Your task to perform on an android device: open app "TextNow: Call + Text Unlimited" (install if not already installed) Image 0: 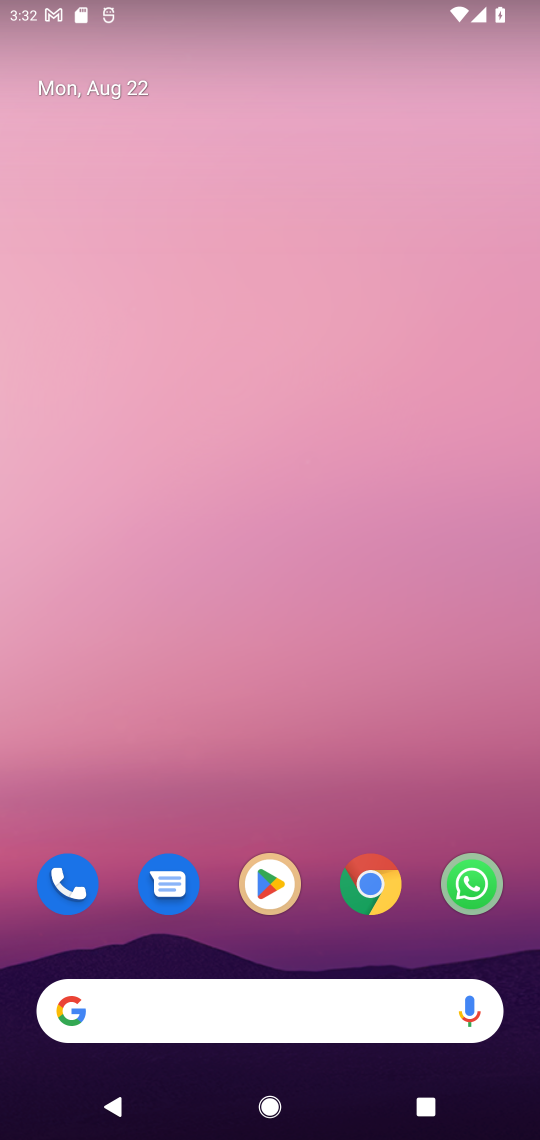
Step 0: click (285, 886)
Your task to perform on an android device: open app "TextNow: Call + Text Unlimited" (install if not already installed) Image 1: 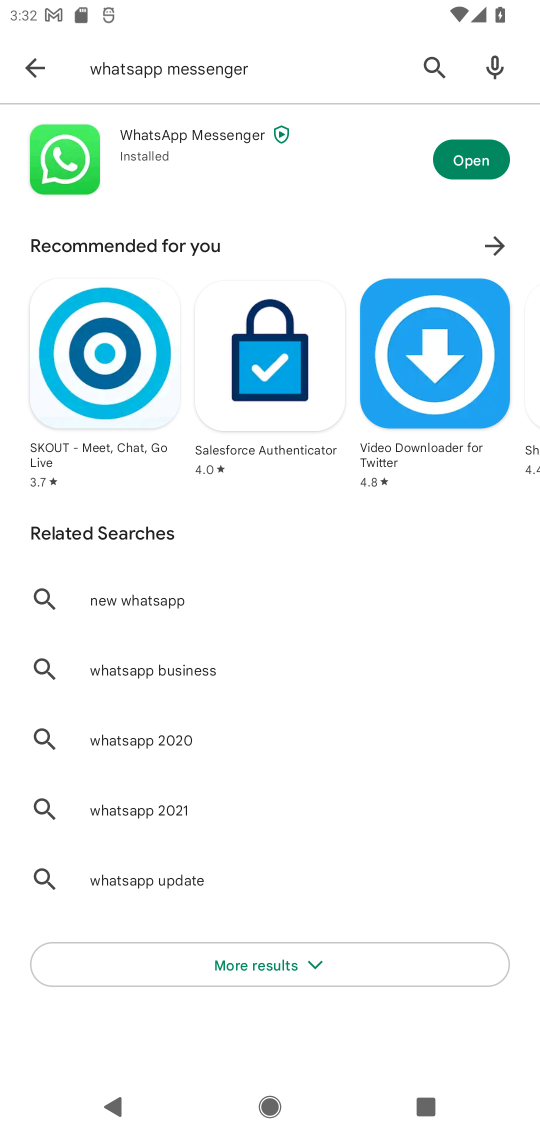
Step 1: click (225, 77)
Your task to perform on an android device: open app "TextNow: Call + Text Unlimited" (install if not already installed) Image 2: 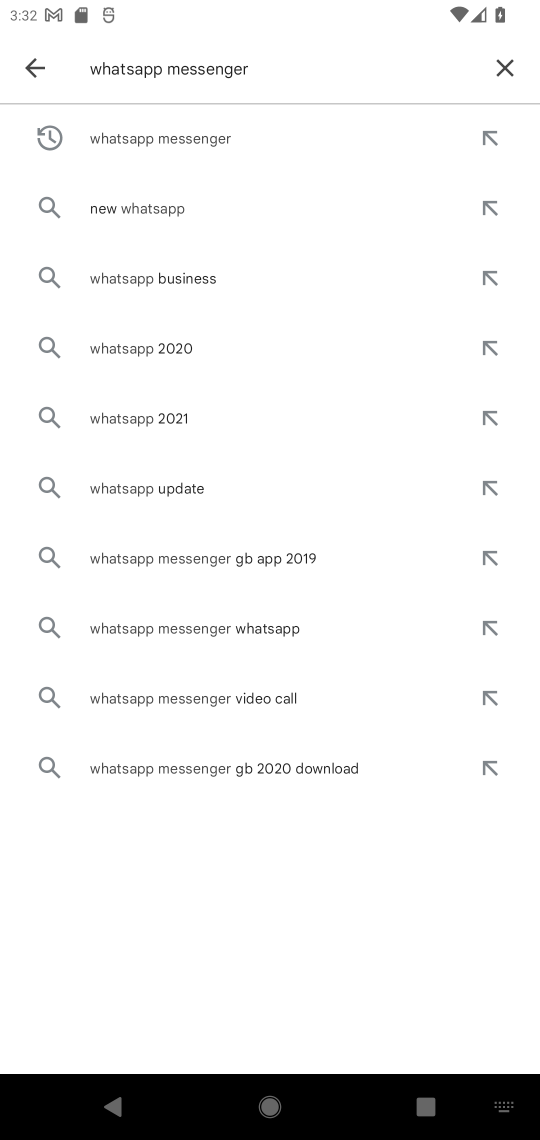
Step 2: click (502, 70)
Your task to perform on an android device: open app "TextNow: Call + Text Unlimited" (install if not already installed) Image 3: 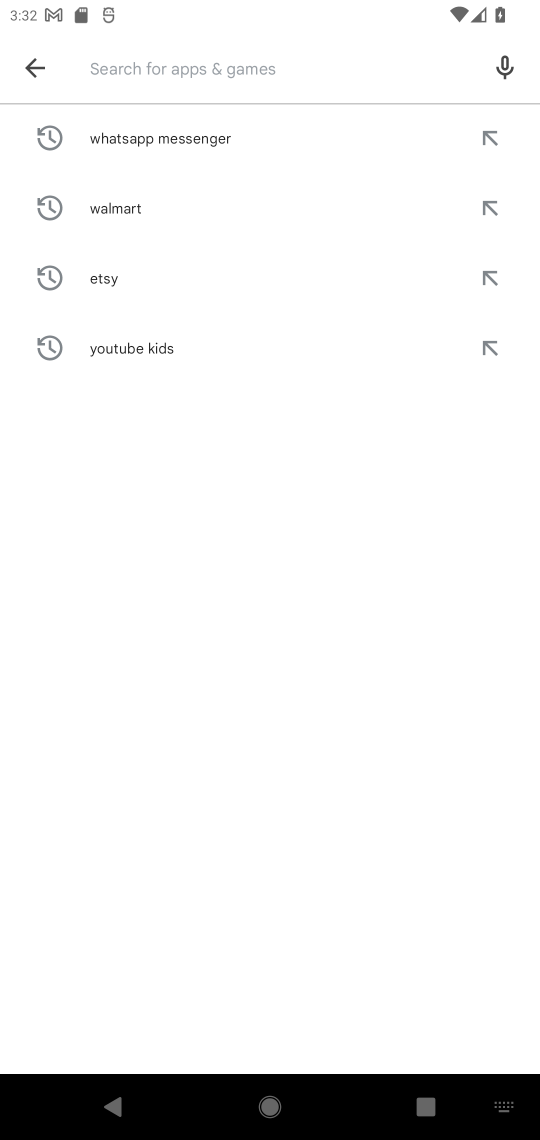
Step 3: type "TextNow"
Your task to perform on an android device: open app "TextNow: Call + Text Unlimited" (install if not already installed) Image 4: 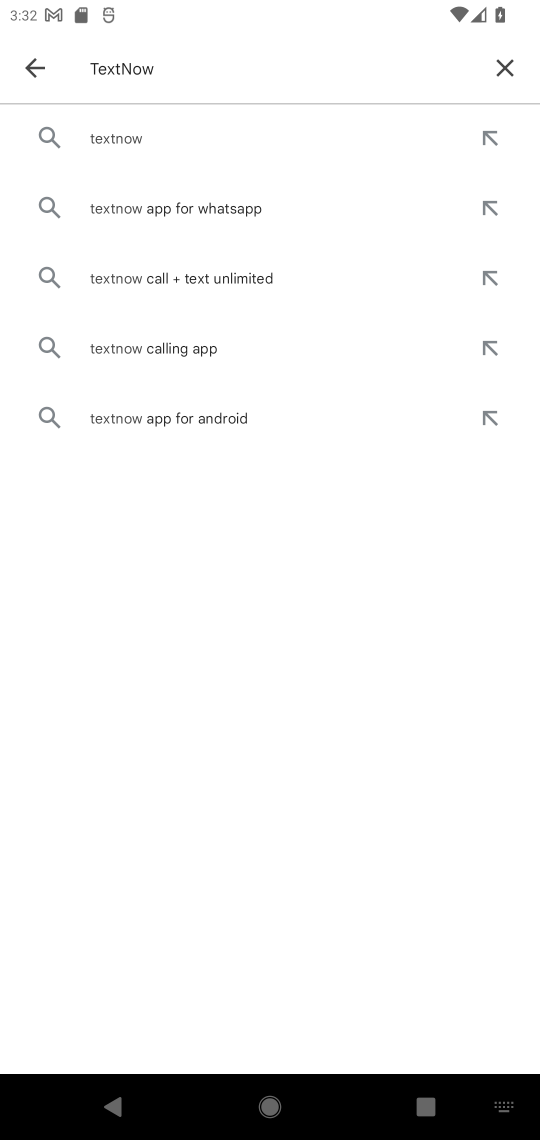
Step 4: click (156, 142)
Your task to perform on an android device: open app "TextNow: Call + Text Unlimited" (install if not already installed) Image 5: 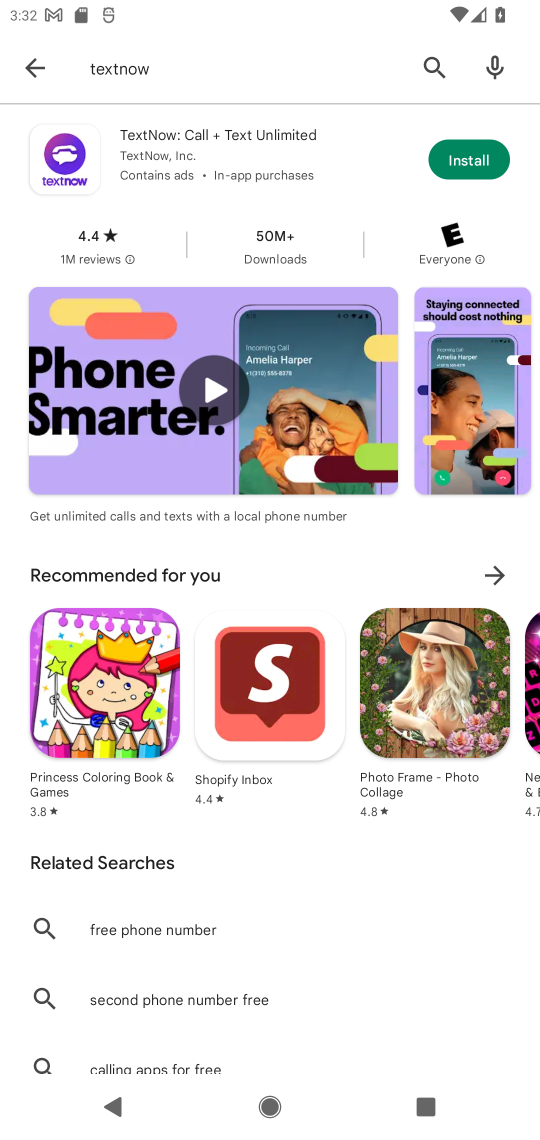
Step 5: click (459, 166)
Your task to perform on an android device: open app "TextNow: Call + Text Unlimited" (install if not already installed) Image 6: 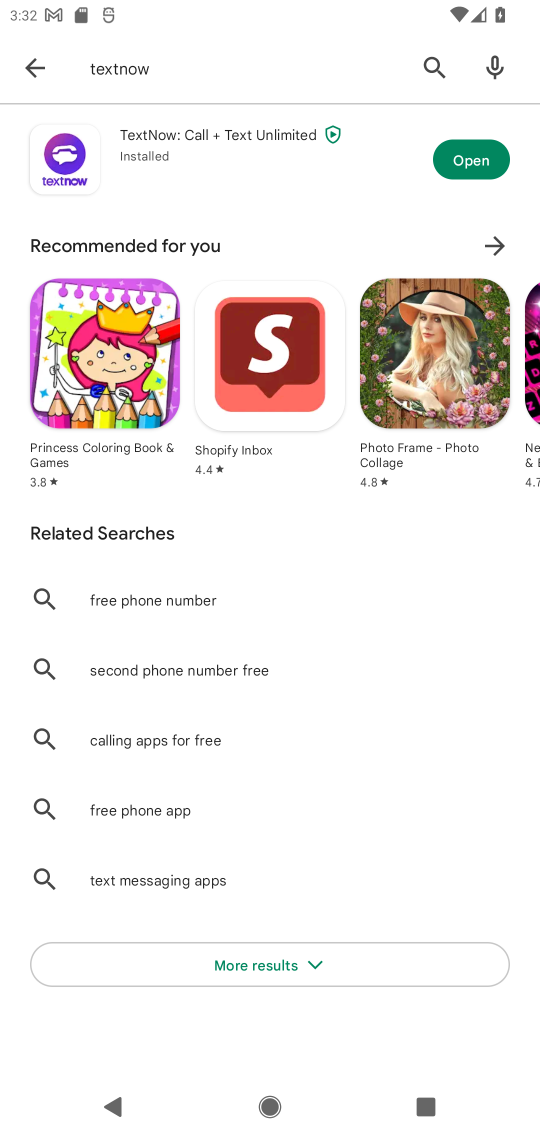
Step 6: click (476, 154)
Your task to perform on an android device: open app "TextNow: Call + Text Unlimited" (install if not already installed) Image 7: 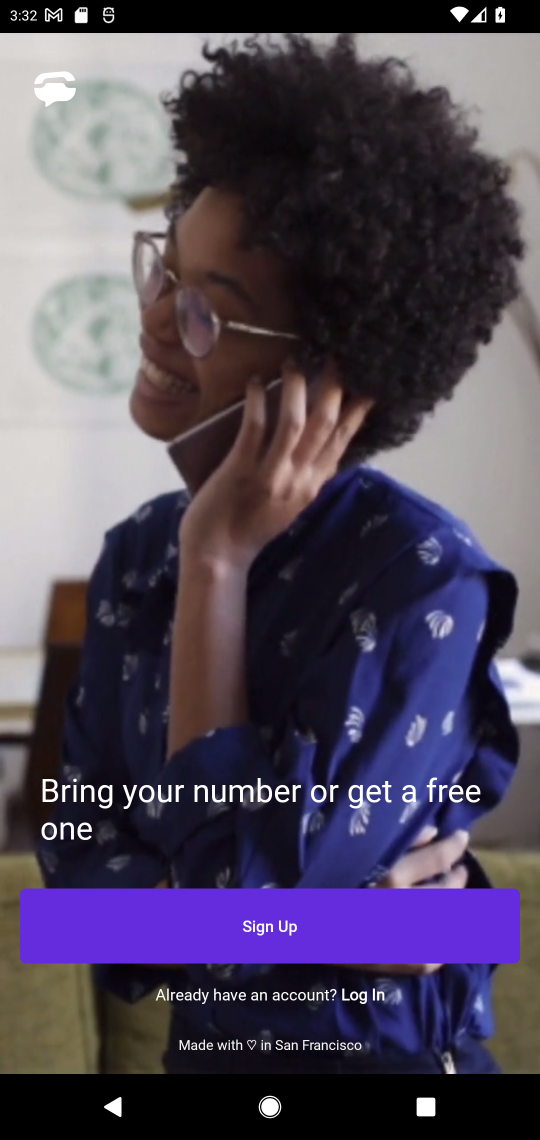
Step 7: task complete